Your task to perform on an android device: What's on my calendar tomorrow? Image 0: 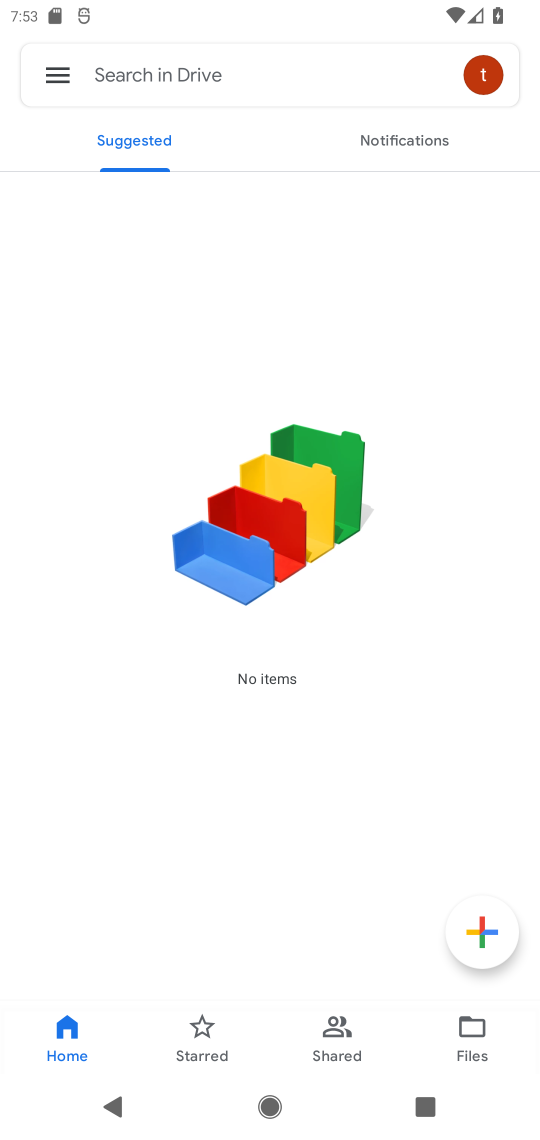
Step 0: press home button
Your task to perform on an android device: What's on my calendar tomorrow? Image 1: 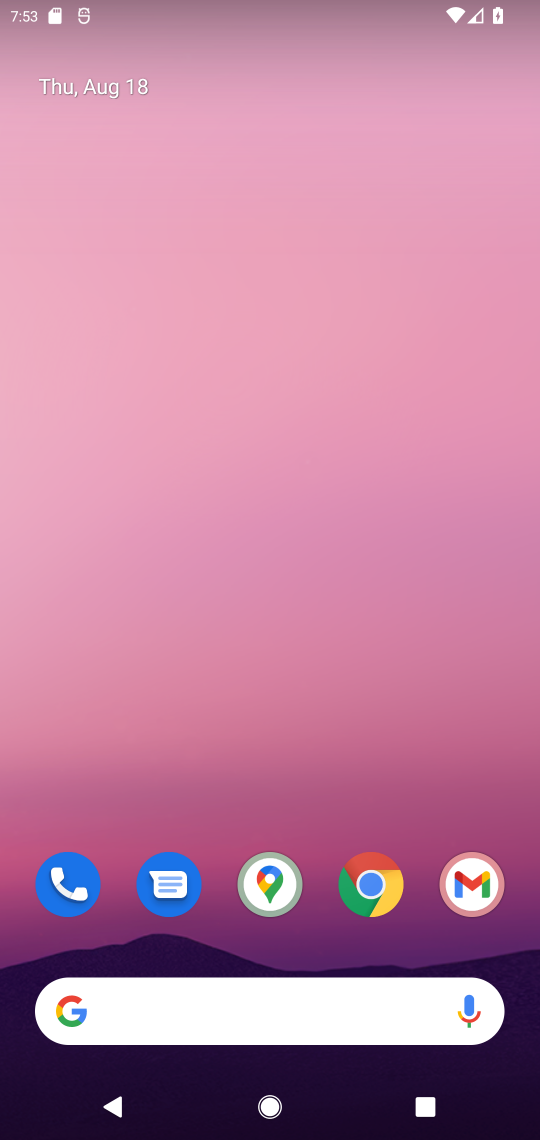
Step 1: click (102, 95)
Your task to perform on an android device: What's on my calendar tomorrow? Image 2: 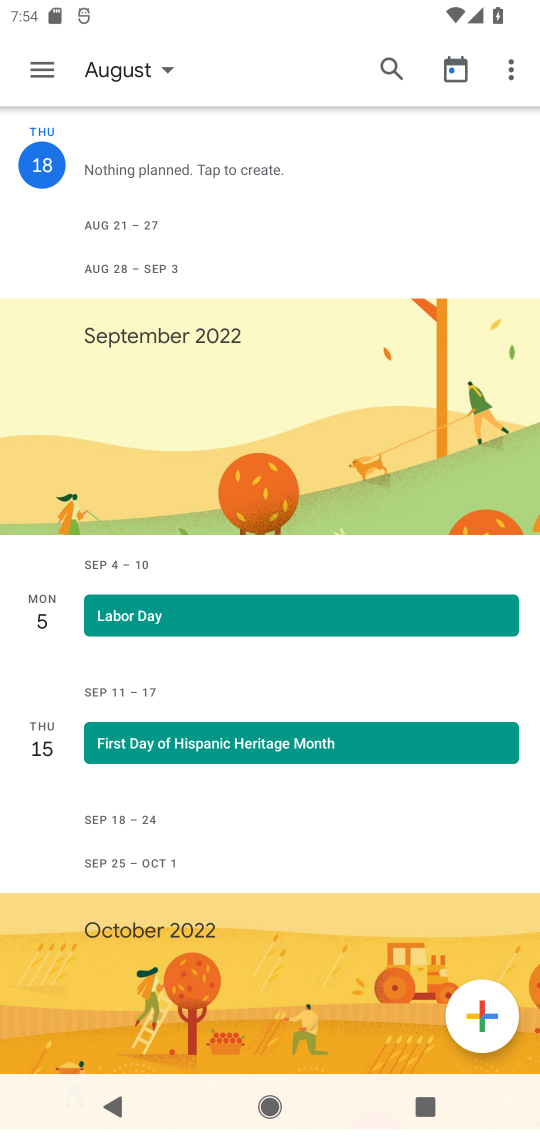
Step 2: click (102, 95)
Your task to perform on an android device: What's on my calendar tomorrow? Image 3: 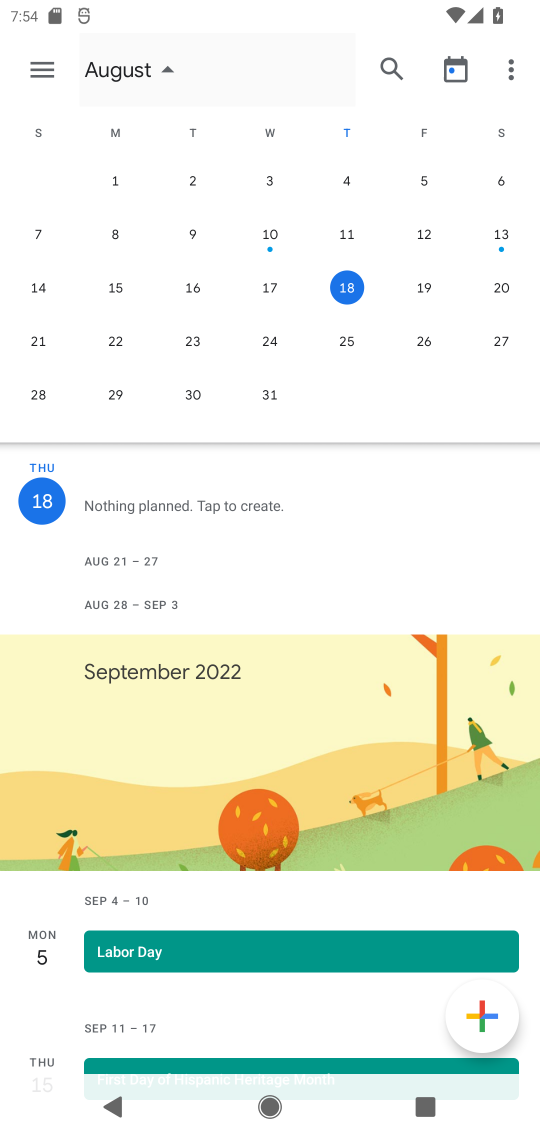
Step 3: task complete